Your task to perform on an android device: Open notification settings Image 0: 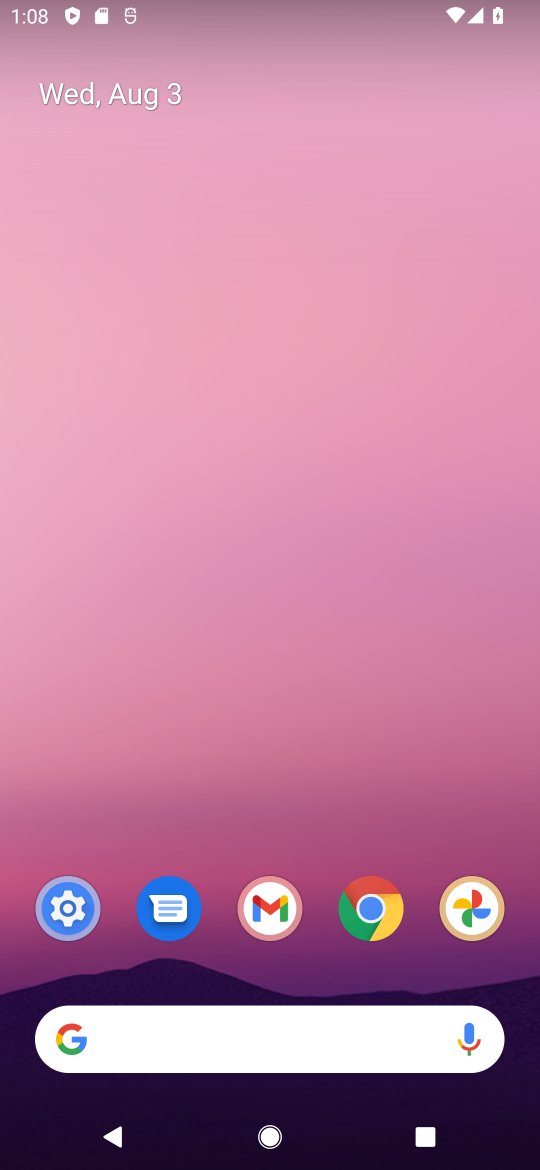
Step 0: click (77, 906)
Your task to perform on an android device: Open notification settings Image 1: 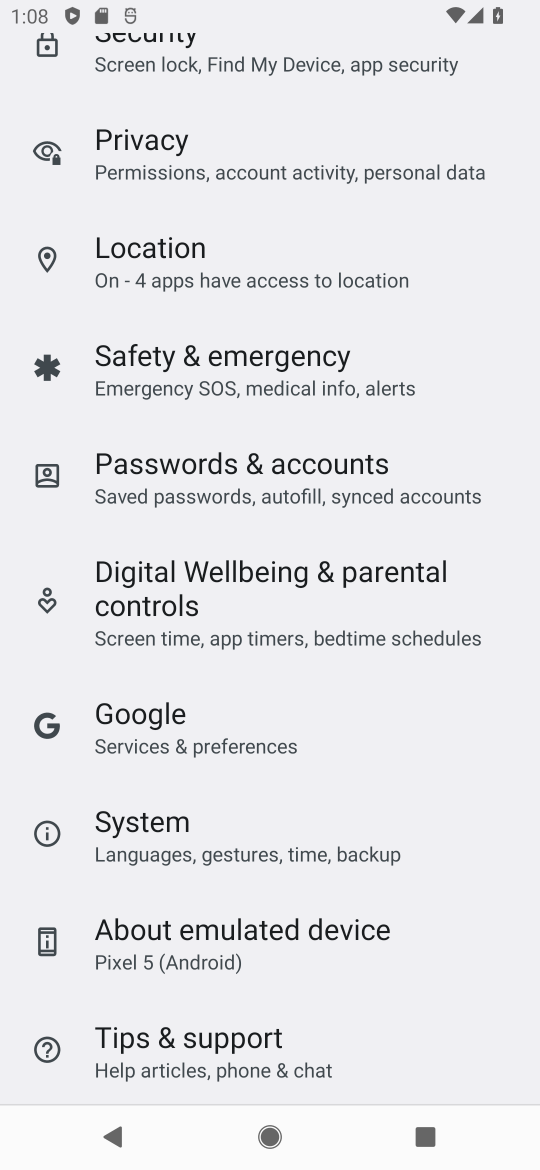
Step 1: drag from (328, 284) to (347, 975)
Your task to perform on an android device: Open notification settings Image 2: 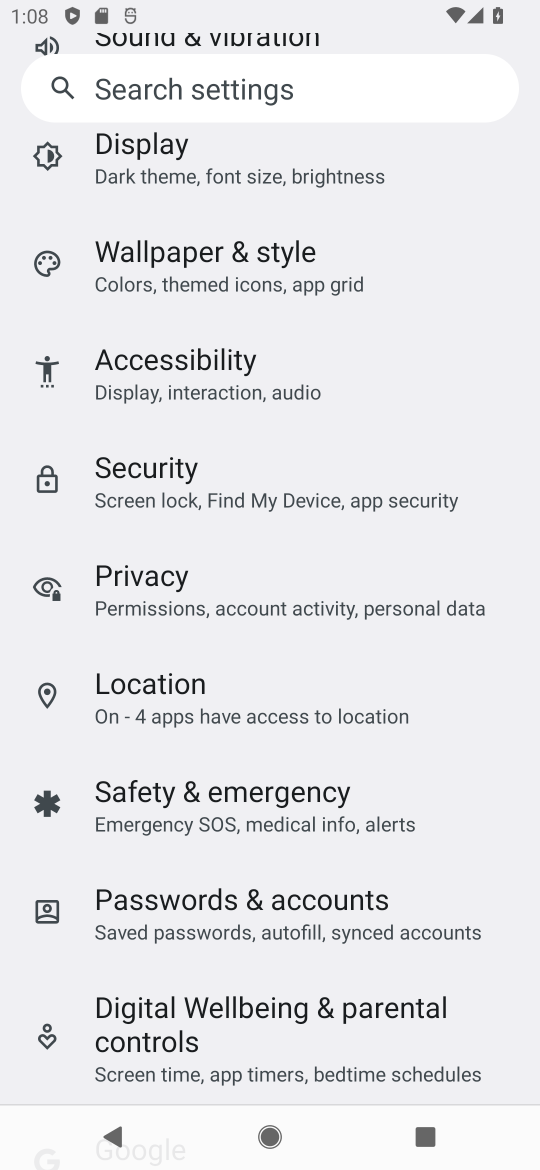
Step 2: drag from (310, 391) to (310, 1062)
Your task to perform on an android device: Open notification settings Image 3: 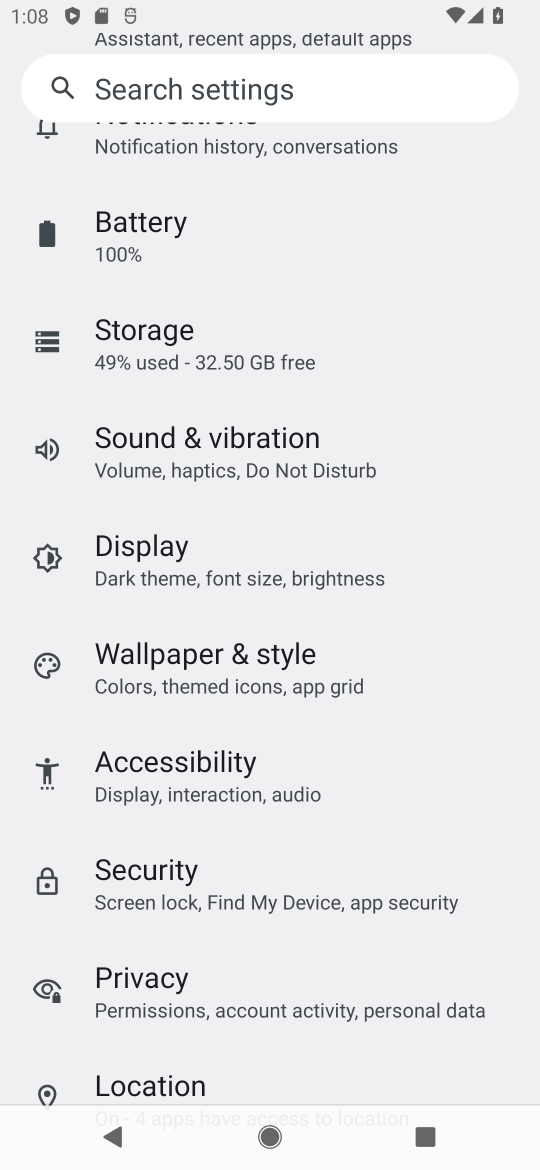
Step 3: drag from (291, 390) to (308, 914)
Your task to perform on an android device: Open notification settings Image 4: 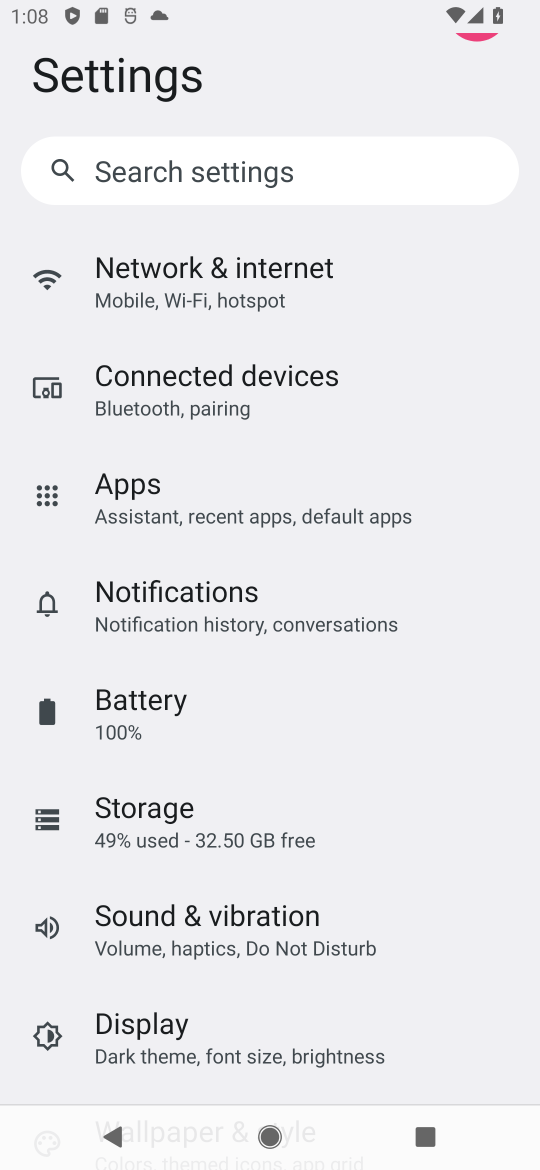
Step 4: click (233, 625)
Your task to perform on an android device: Open notification settings Image 5: 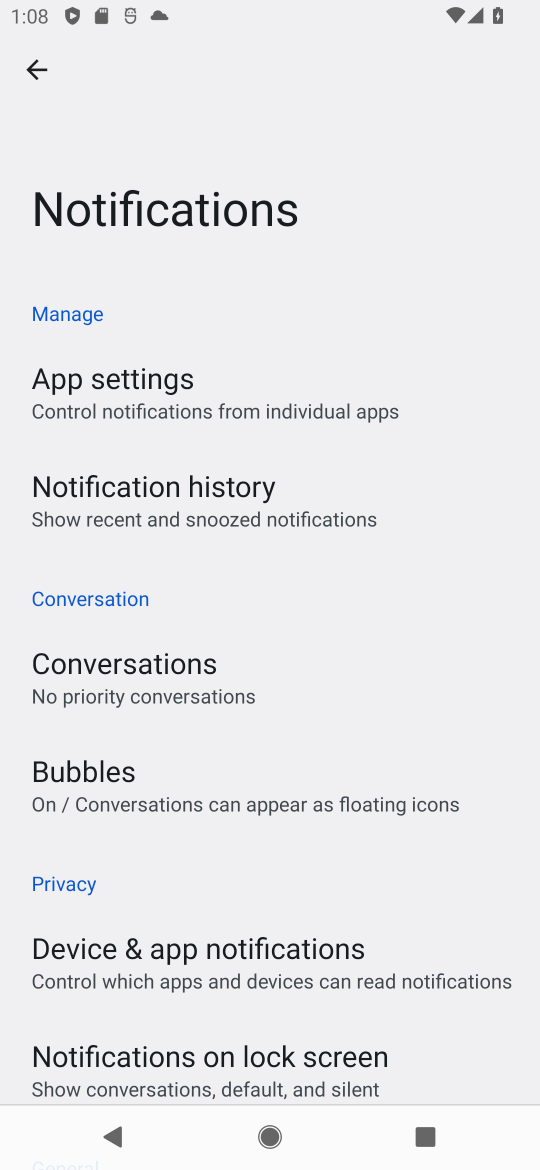
Step 5: task complete